Your task to perform on an android device: make emails show in primary in the gmail app Image 0: 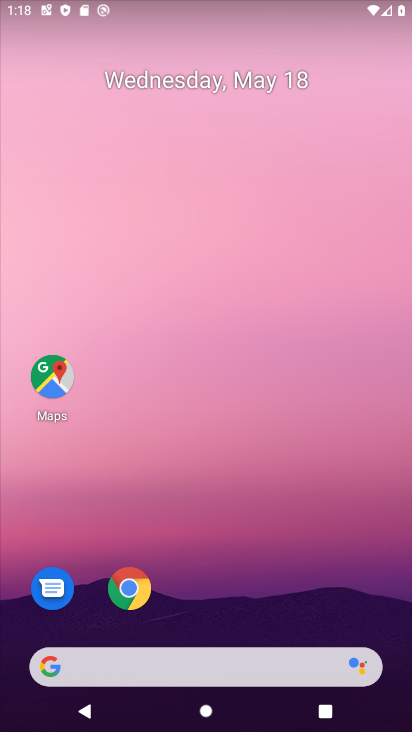
Step 0: drag from (338, 585) to (358, 151)
Your task to perform on an android device: make emails show in primary in the gmail app Image 1: 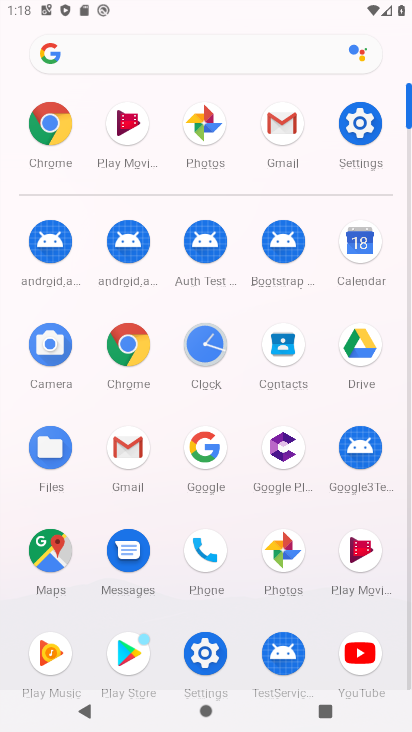
Step 1: click (119, 438)
Your task to perform on an android device: make emails show in primary in the gmail app Image 2: 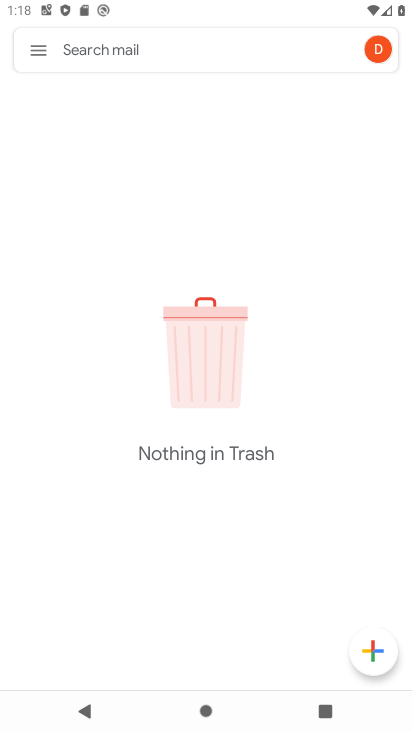
Step 2: click (36, 59)
Your task to perform on an android device: make emails show in primary in the gmail app Image 3: 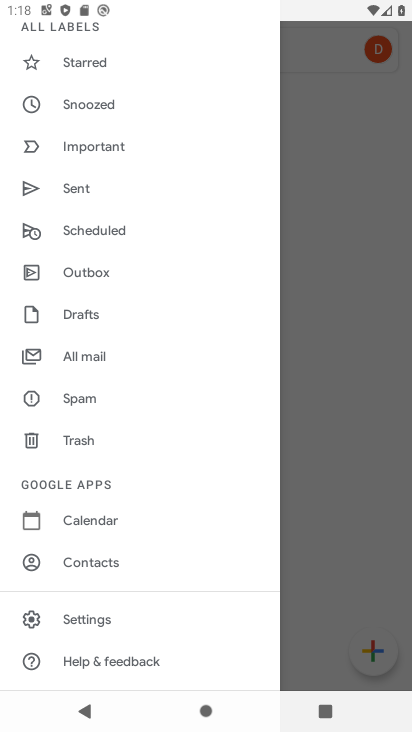
Step 3: drag from (205, 559) to (210, 335)
Your task to perform on an android device: make emails show in primary in the gmail app Image 4: 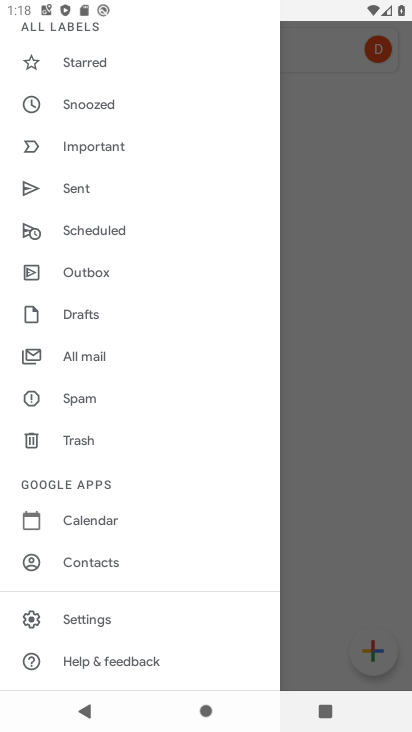
Step 4: drag from (219, 257) to (205, 462)
Your task to perform on an android device: make emails show in primary in the gmail app Image 5: 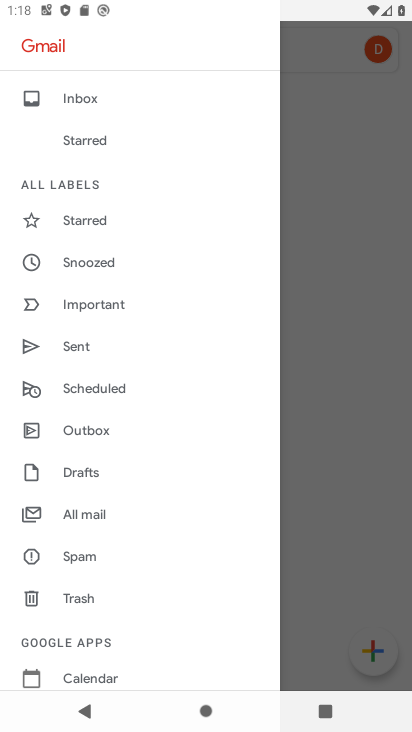
Step 5: drag from (201, 223) to (198, 502)
Your task to perform on an android device: make emails show in primary in the gmail app Image 6: 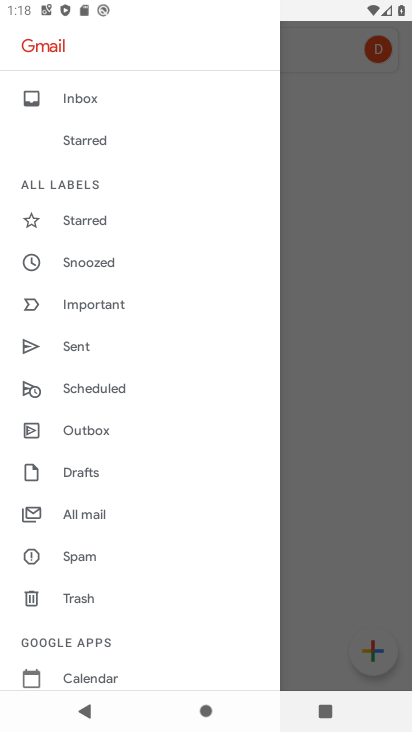
Step 6: drag from (197, 582) to (193, 318)
Your task to perform on an android device: make emails show in primary in the gmail app Image 7: 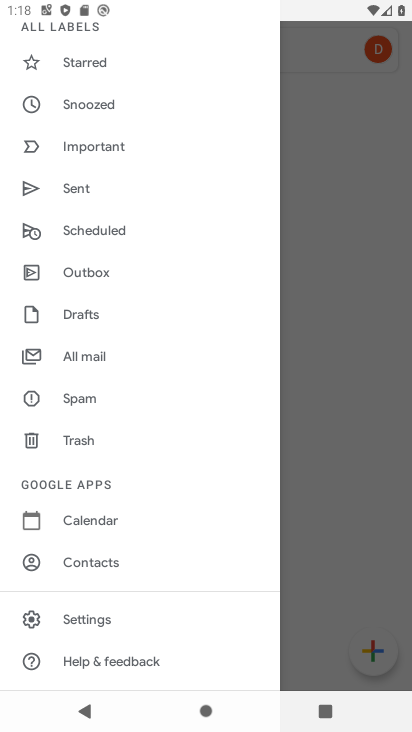
Step 7: drag from (179, 611) to (192, 353)
Your task to perform on an android device: make emails show in primary in the gmail app Image 8: 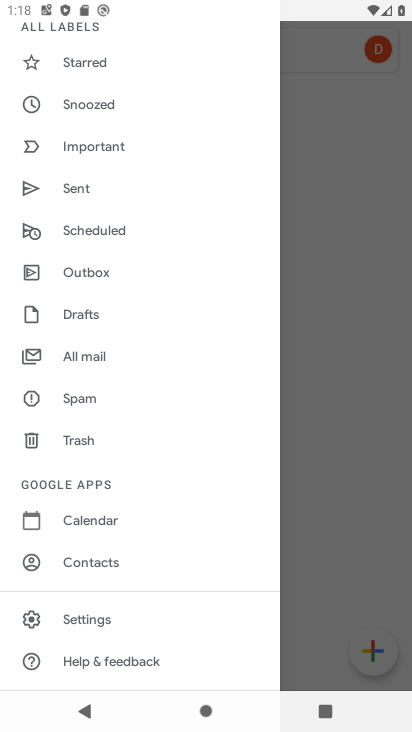
Step 8: drag from (208, 278) to (212, 450)
Your task to perform on an android device: make emails show in primary in the gmail app Image 9: 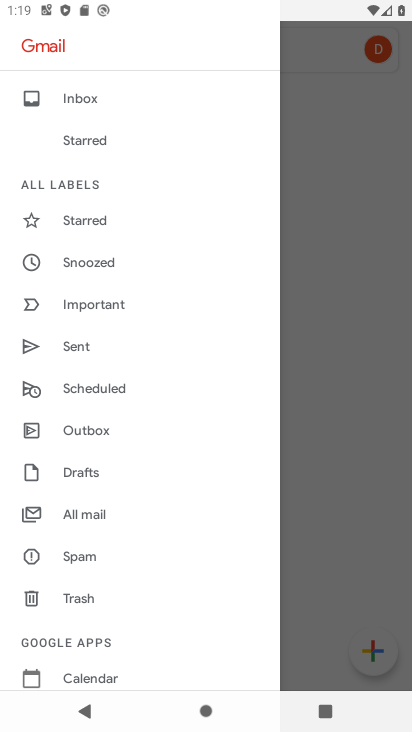
Step 9: drag from (203, 584) to (219, 394)
Your task to perform on an android device: make emails show in primary in the gmail app Image 10: 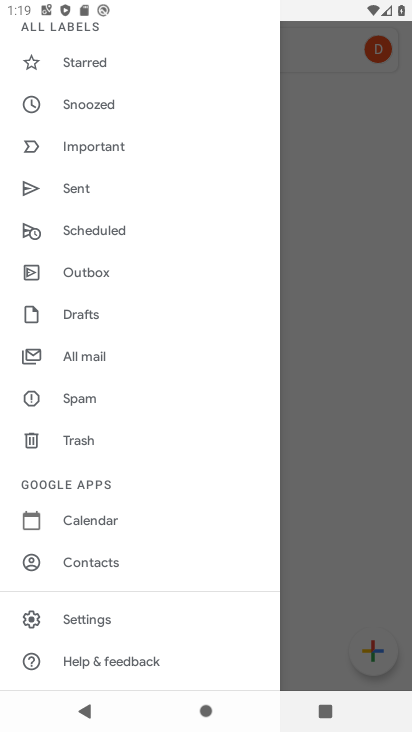
Step 10: drag from (205, 241) to (205, 498)
Your task to perform on an android device: make emails show in primary in the gmail app Image 11: 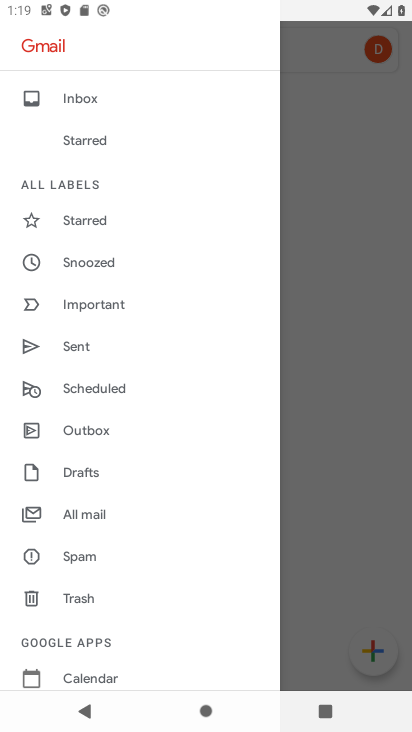
Step 11: drag from (188, 583) to (202, 361)
Your task to perform on an android device: make emails show in primary in the gmail app Image 12: 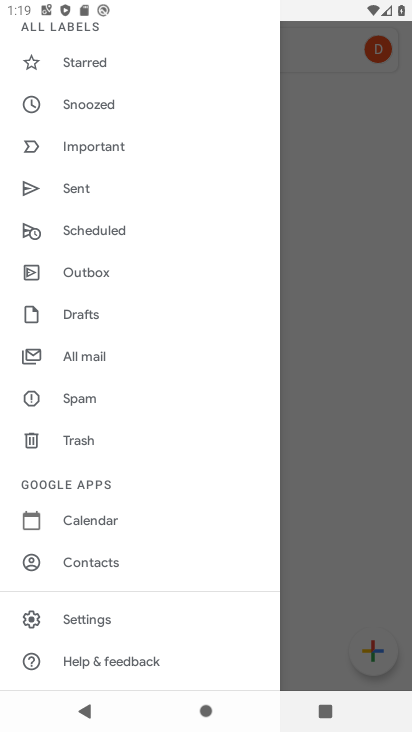
Step 12: click (112, 617)
Your task to perform on an android device: make emails show in primary in the gmail app Image 13: 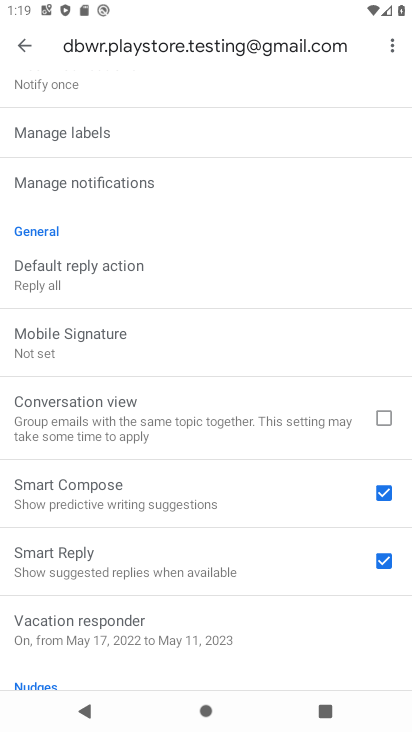
Step 13: drag from (283, 609) to (283, 336)
Your task to perform on an android device: make emails show in primary in the gmail app Image 14: 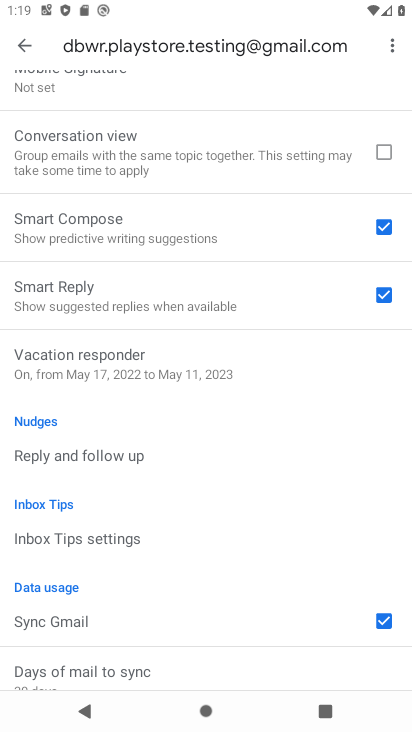
Step 14: drag from (277, 535) to (291, 333)
Your task to perform on an android device: make emails show in primary in the gmail app Image 15: 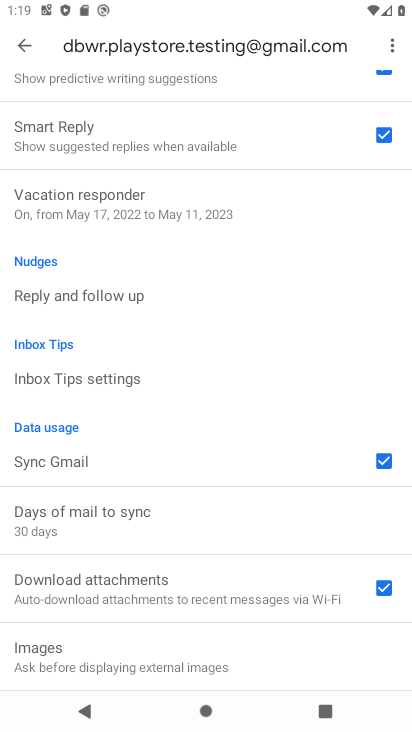
Step 15: drag from (247, 535) to (267, 313)
Your task to perform on an android device: make emails show in primary in the gmail app Image 16: 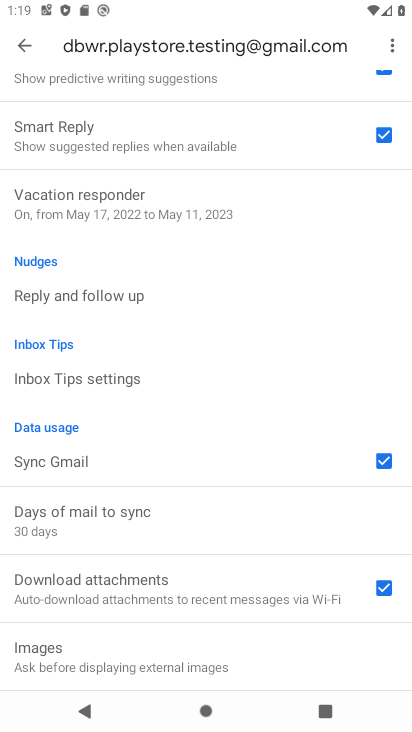
Step 16: drag from (260, 257) to (260, 478)
Your task to perform on an android device: make emails show in primary in the gmail app Image 17: 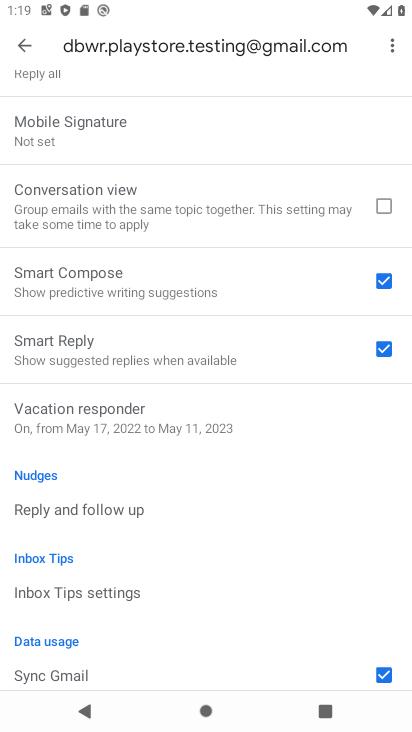
Step 17: drag from (261, 295) to (255, 471)
Your task to perform on an android device: make emails show in primary in the gmail app Image 18: 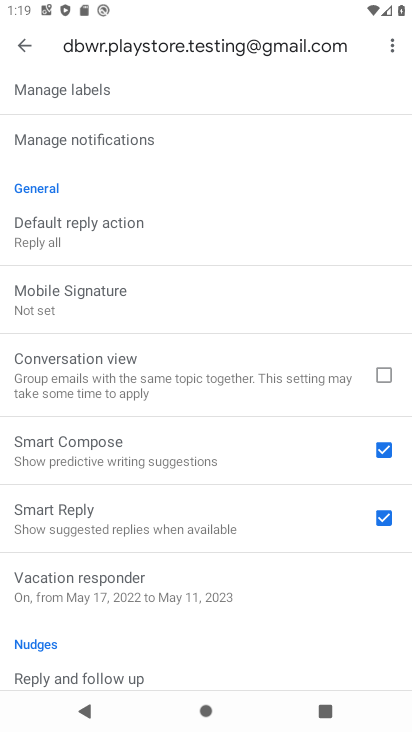
Step 18: drag from (275, 217) to (273, 499)
Your task to perform on an android device: make emails show in primary in the gmail app Image 19: 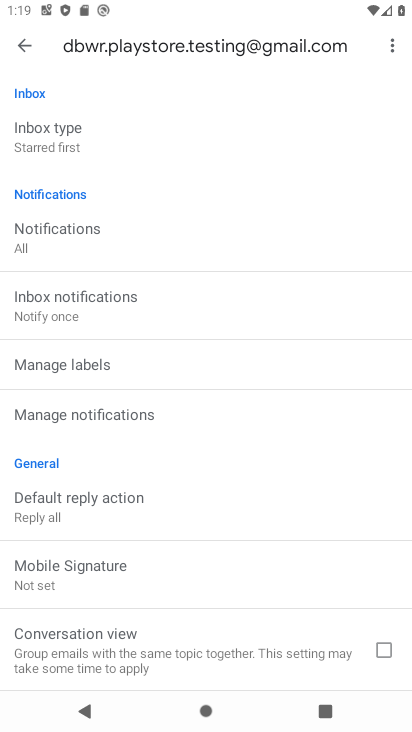
Step 19: drag from (265, 240) to (238, 454)
Your task to perform on an android device: make emails show in primary in the gmail app Image 20: 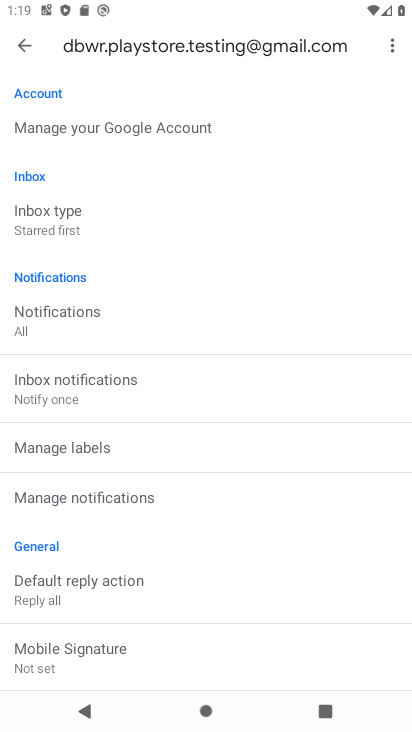
Step 20: drag from (248, 566) to (256, 429)
Your task to perform on an android device: make emails show in primary in the gmail app Image 21: 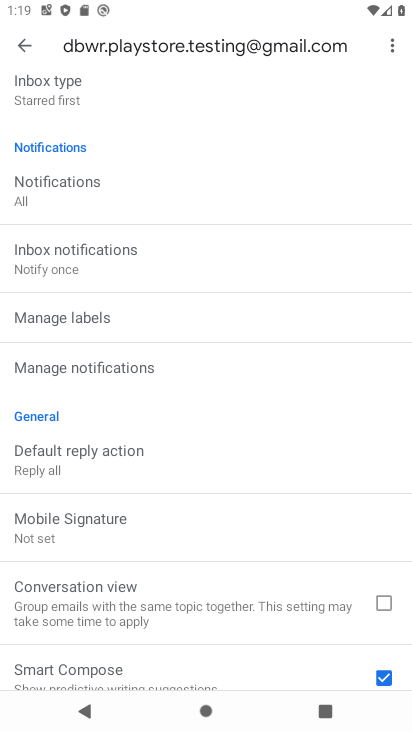
Step 21: drag from (235, 239) to (217, 488)
Your task to perform on an android device: make emails show in primary in the gmail app Image 22: 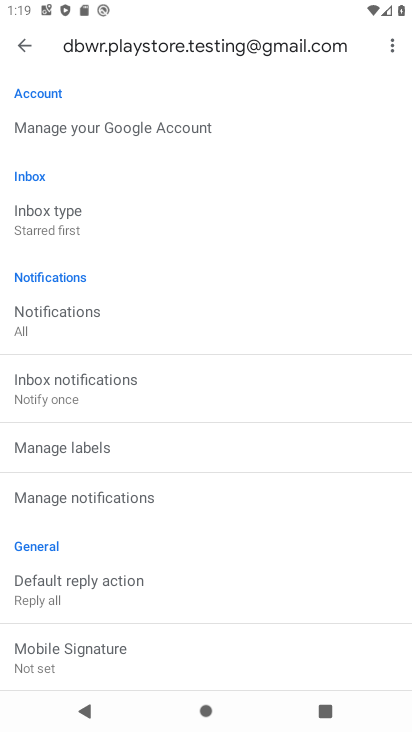
Step 22: click (47, 219)
Your task to perform on an android device: make emails show in primary in the gmail app Image 23: 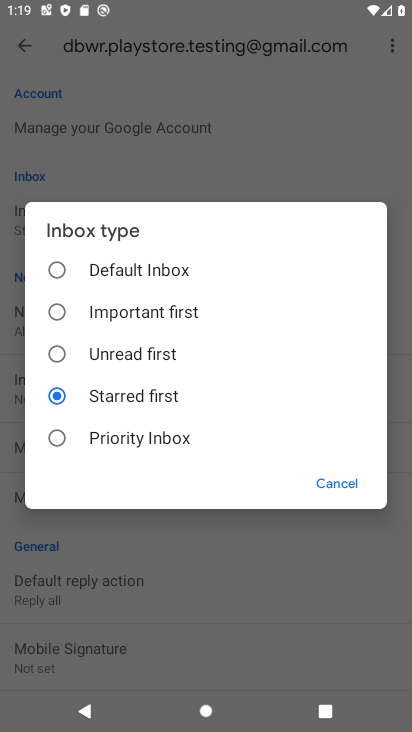
Step 23: click (54, 265)
Your task to perform on an android device: make emails show in primary in the gmail app Image 24: 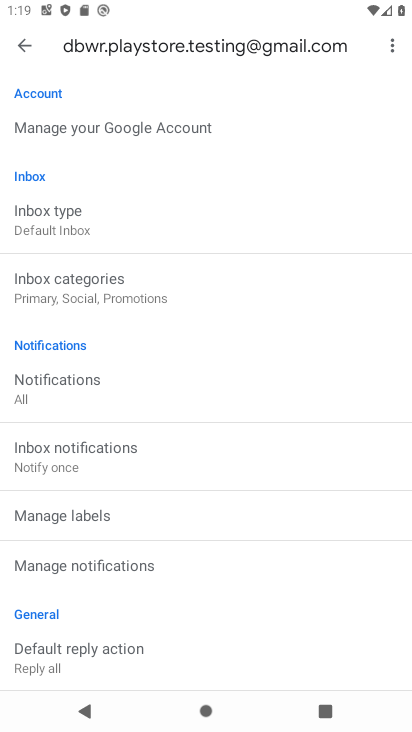
Step 24: click (95, 288)
Your task to perform on an android device: make emails show in primary in the gmail app Image 25: 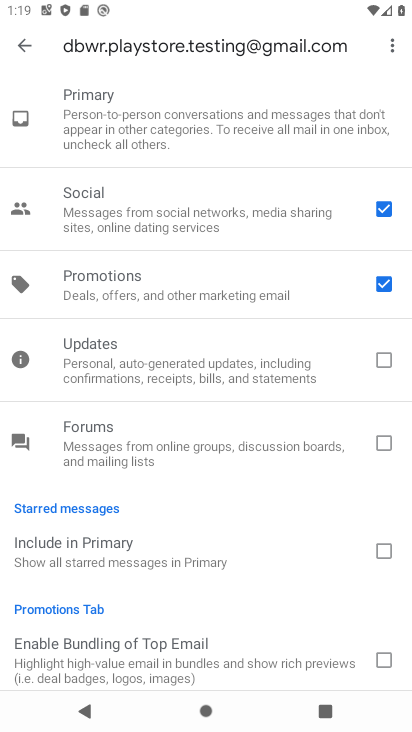
Step 25: click (373, 283)
Your task to perform on an android device: make emails show in primary in the gmail app Image 26: 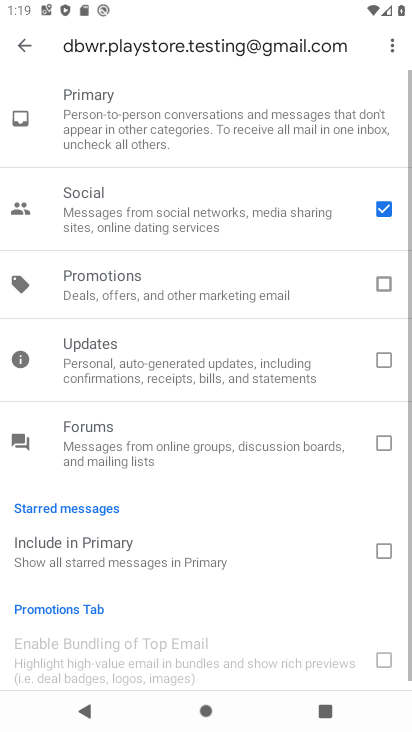
Step 26: click (386, 203)
Your task to perform on an android device: make emails show in primary in the gmail app Image 27: 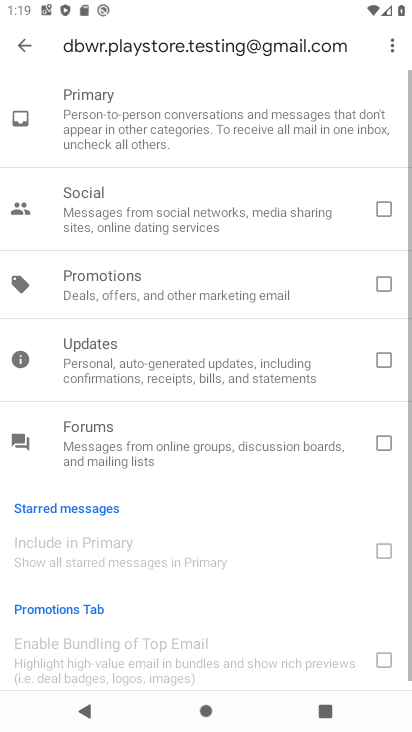
Step 27: click (383, 217)
Your task to perform on an android device: make emails show in primary in the gmail app Image 28: 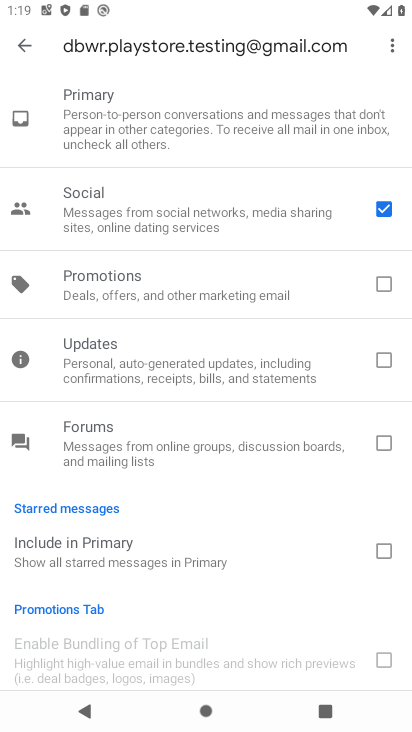
Step 28: click (381, 204)
Your task to perform on an android device: make emails show in primary in the gmail app Image 29: 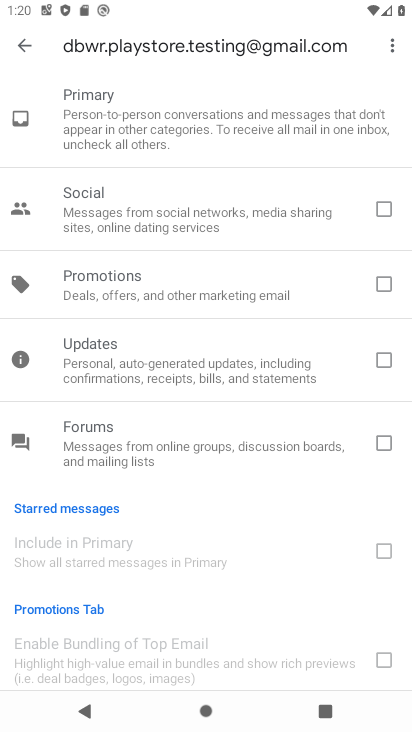
Step 29: task complete